Your task to perform on an android device: change the upload size in google photos Image 0: 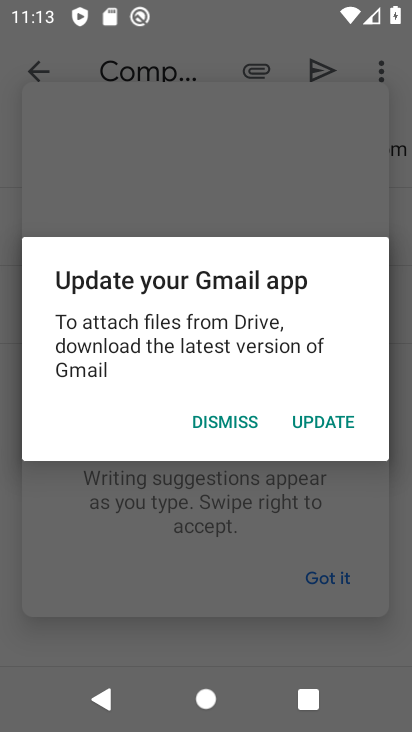
Step 0: press home button
Your task to perform on an android device: change the upload size in google photos Image 1: 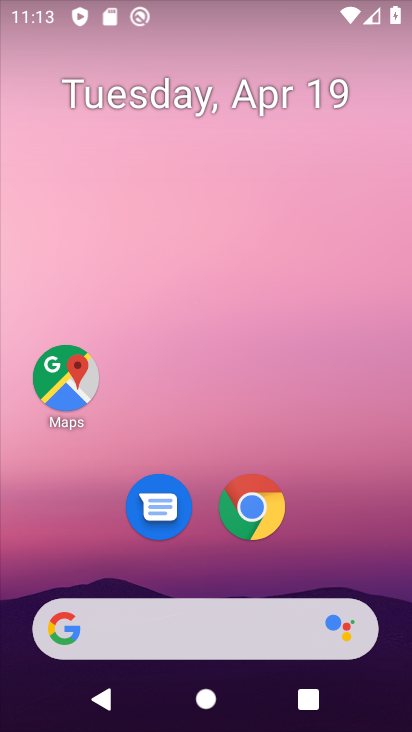
Step 1: drag from (385, 559) to (350, 160)
Your task to perform on an android device: change the upload size in google photos Image 2: 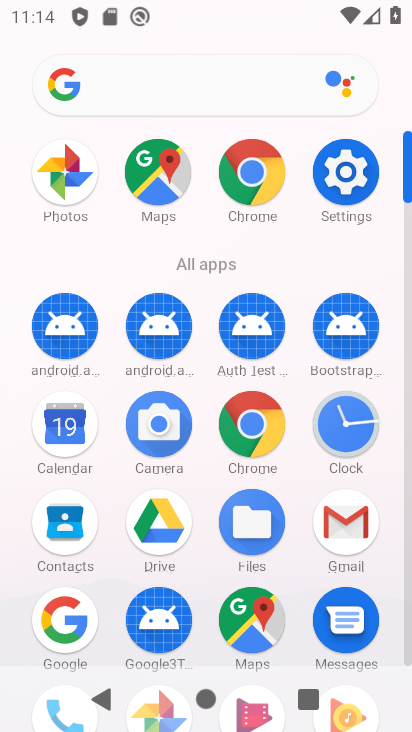
Step 2: drag from (300, 573) to (290, 299)
Your task to perform on an android device: change the upload size in google photos Image 3: 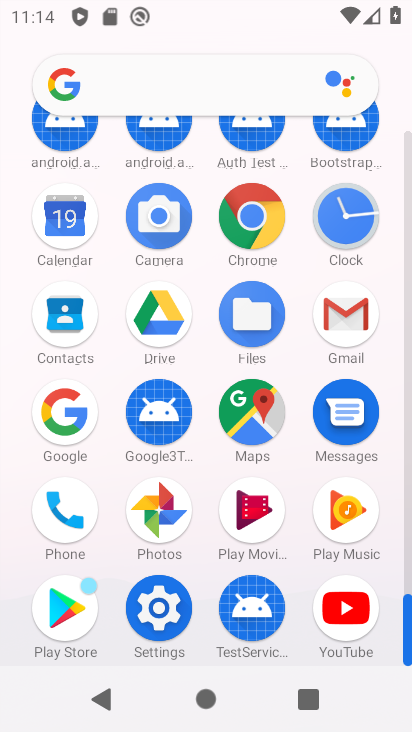
Step 3: click (142, 525)
Your task to perform on an android device: change the upload size in google photos Image 4: 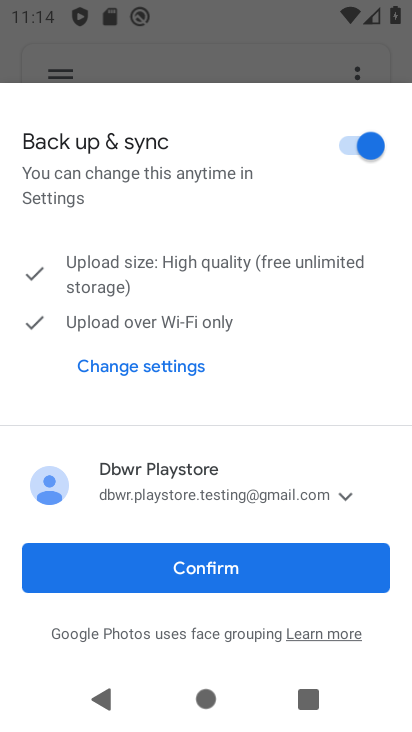
Step 4: click (198, 570)
Your task to perform on an android device: change the upload size in google photos Image 5: 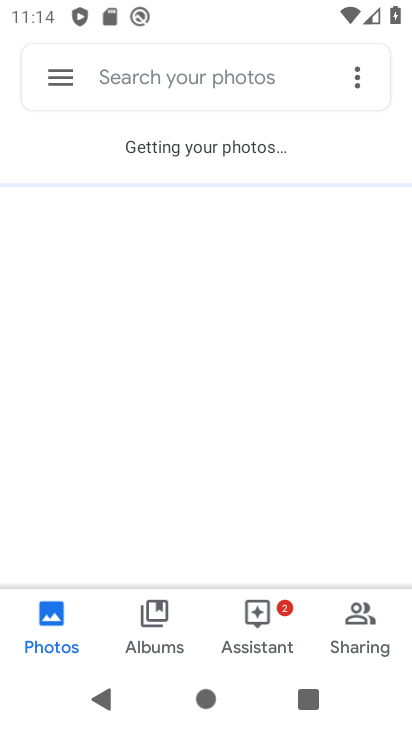
Step 5: click (150, 630)
Your task to perform on an android device: change the upload size in google photos Image 6: 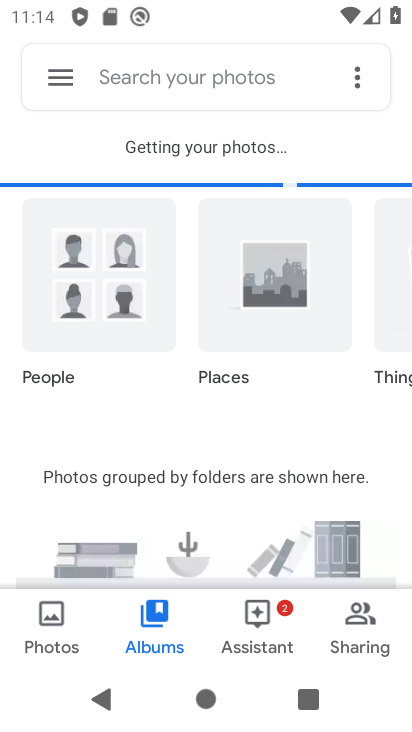
Step 6: click (66, 89)
Your task to perform on an android device: change the upload size in google photos Image 7: 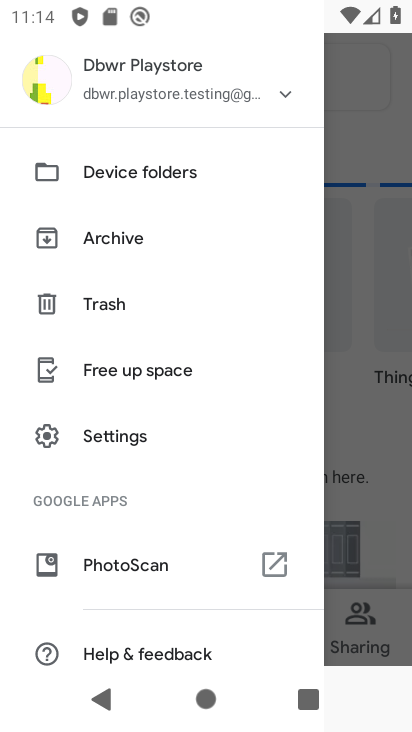
Step 7: click (137, 444)
Your task to perform on an android device: change the upload size in google photos Image 8: 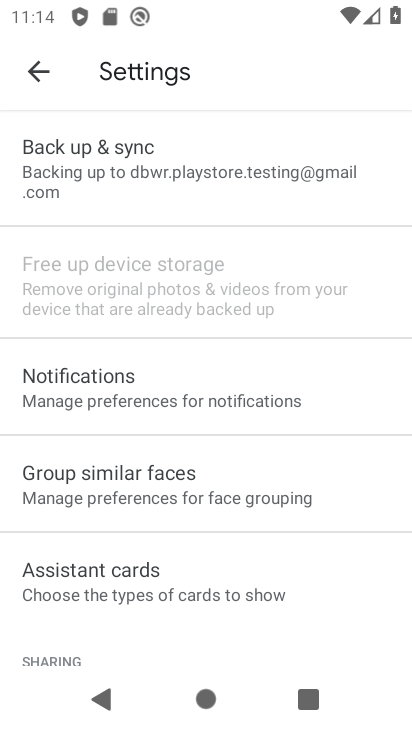
Step 8: click (155, 160)
Your task to perform on an android device: change the upload size in google photos Image 9: 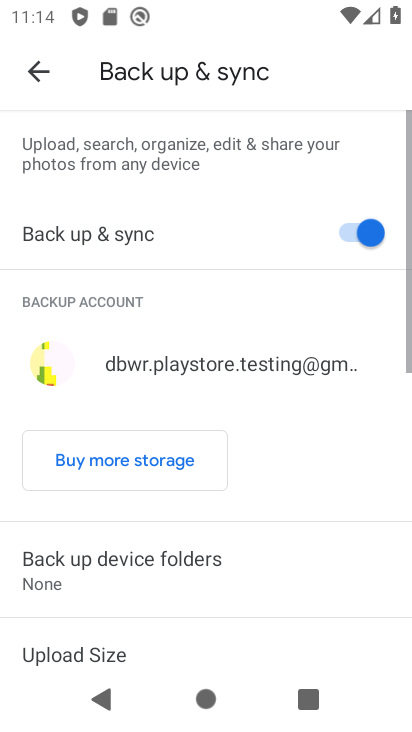
Step 9: drag from (263, 607) to (261, 260)
Your task to perform on an android device: change the upload size in google photos Image 10: 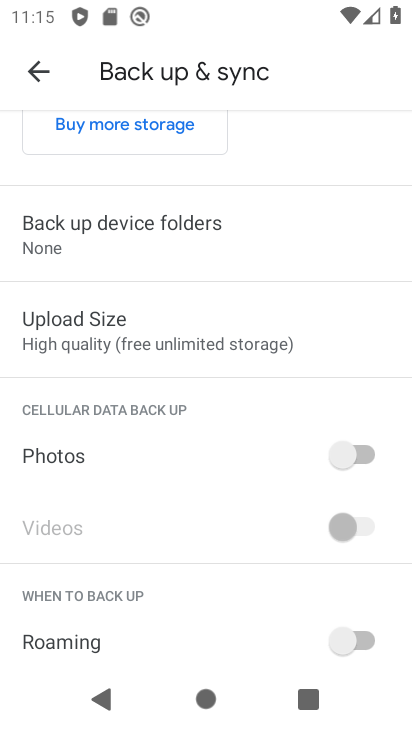
Step 10: click (215, 305)
Your task to perform on an android device: change the upload size in google photos Image 11: 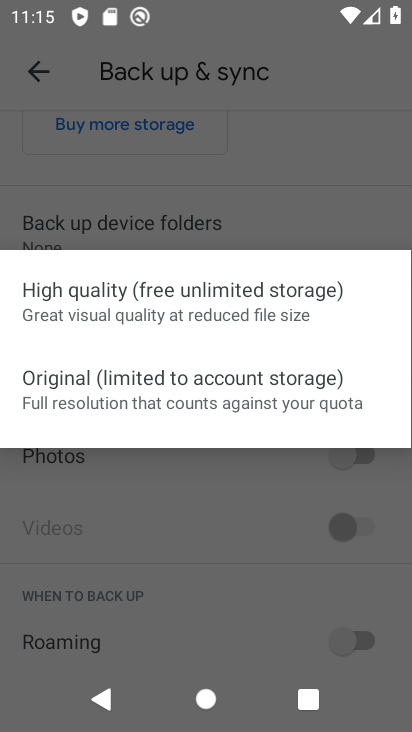
Step 11: click (171, 405)
Your task to perform on an android device: change the upload size in google photos Image 12: 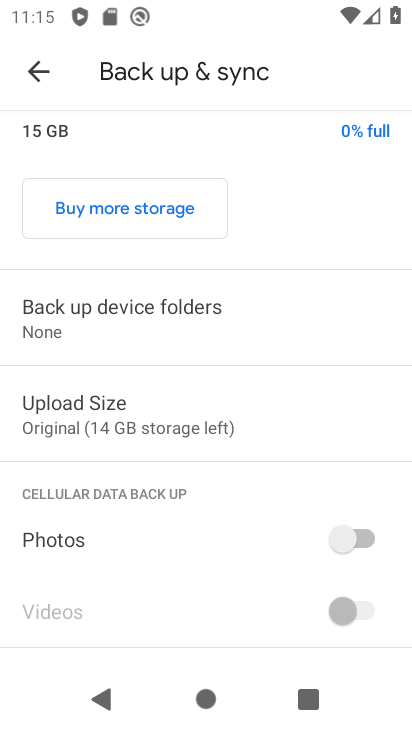
Step 12: task complete